Your task to perform on an android device: Go to CNN.com Image 0: 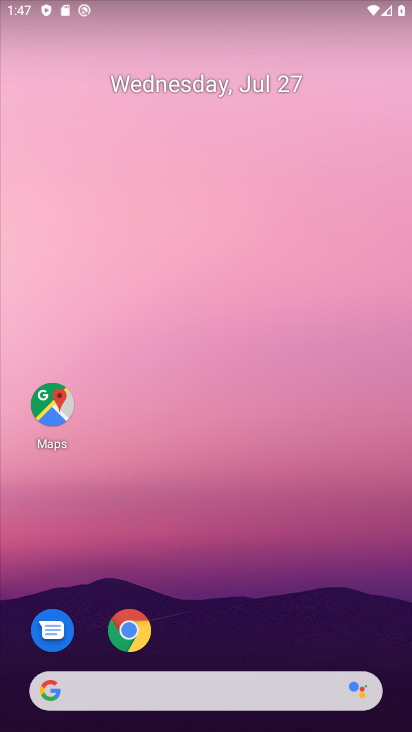
Step 0: click (125, 627)
Your task to perform on an android device: Go to CNN.com Image 1: 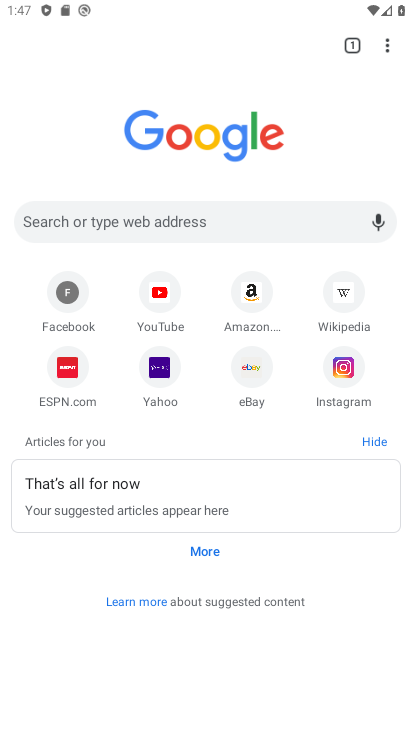
Step 1: click (177, 221)
Your task to perform on an android device: Go to CNN.com Image 2: 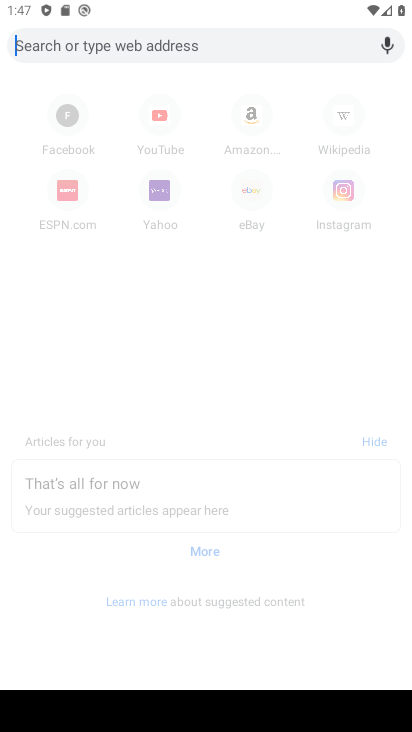
Step 2: type "cnn.com"
Your task to perform on an android device: Go to CNN.com Image 3: 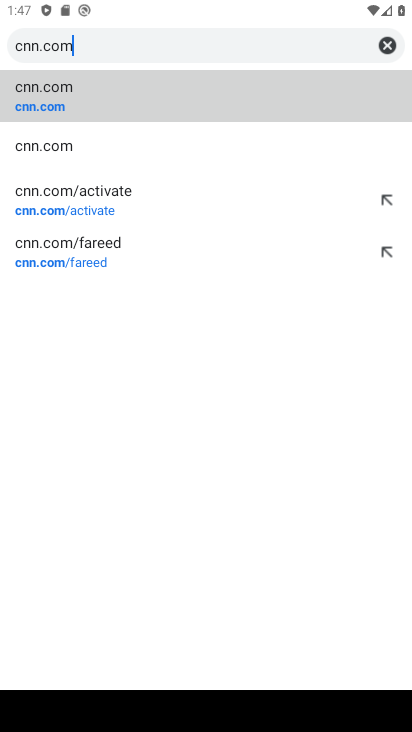
Step 3: click (176, 90)
Your task to perform on an android device: Go to CNN.com Image 4: 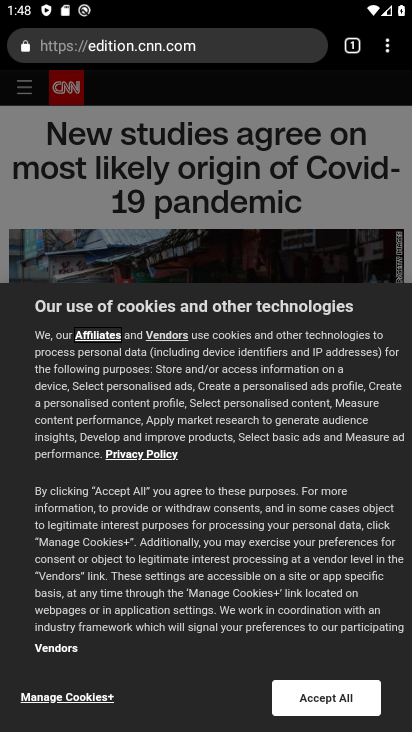
Step 4: task complete